Your task to perform on an android device: change the clock display to analog Image 0: 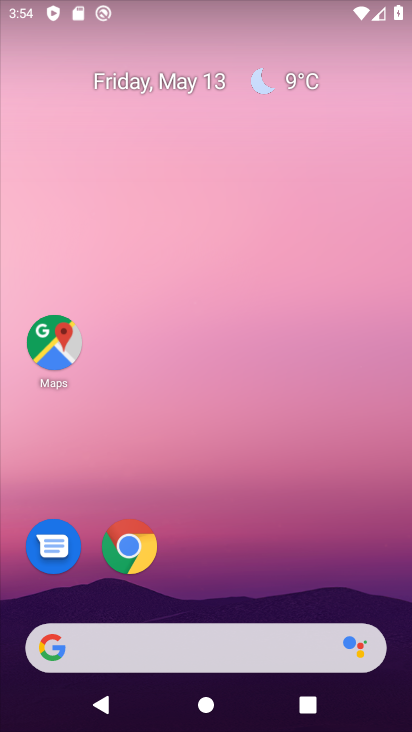
Step 0: drag from (228, 604) to (104, 3)
Your task to perform on an android device: change the clock display to analog Image 1: 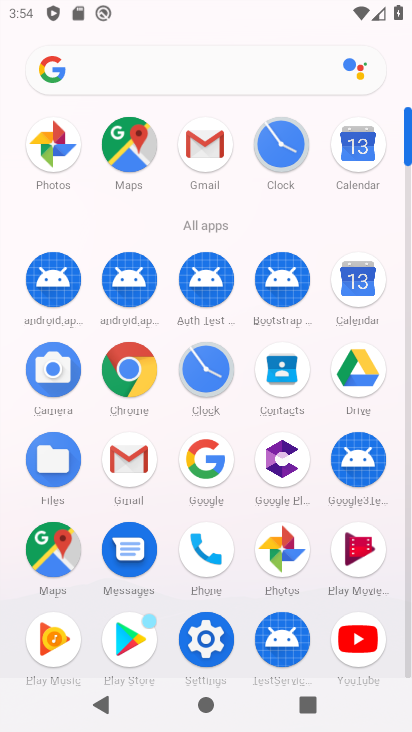
Step 1: click (210, 365)
Your task to perform on an android device: change the clock display to analog Image 2: 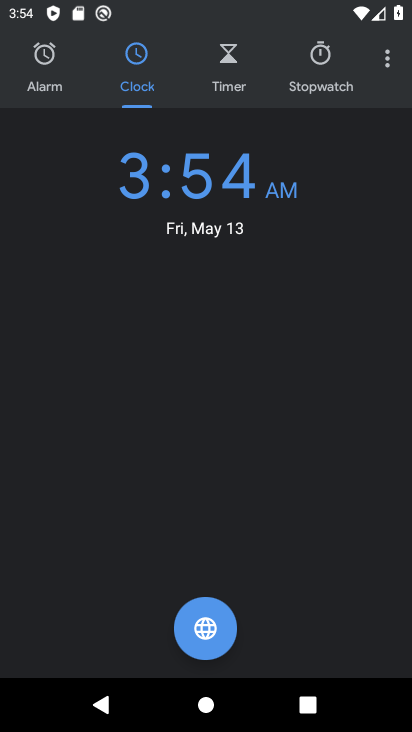
Step 2: click (397, 63)
Your task to perform on an android device: change the clock display to analog Image 3: 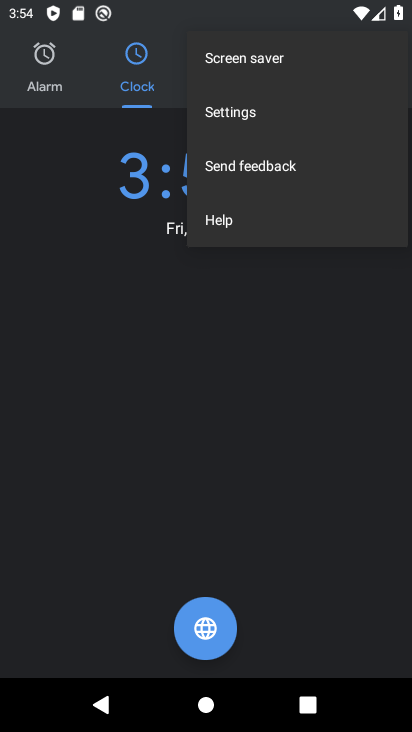
Step 3: click (261, 108)
Your task to perform on an android device: change the clock display to analog Image 4: 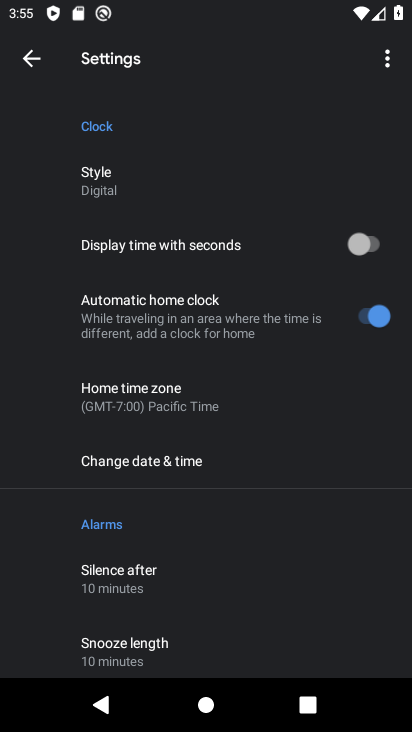
Step 4: click (128, 177)
Your task to perform on an android device: change the clock display to analog Image 5: 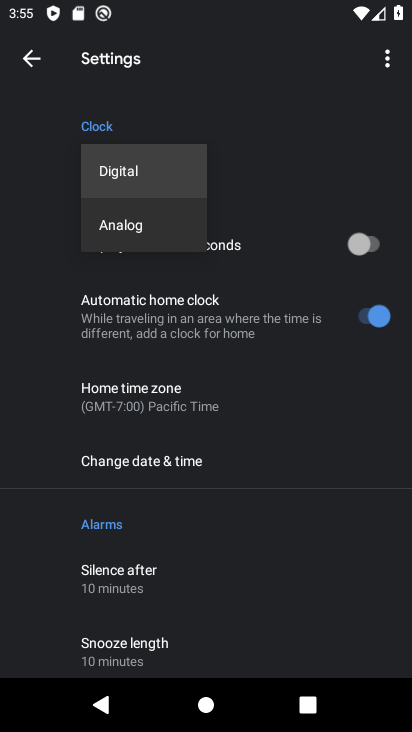
Step 5: click (150, 223)
Your task to perform on an android device: change the clock display to analog Image 6: 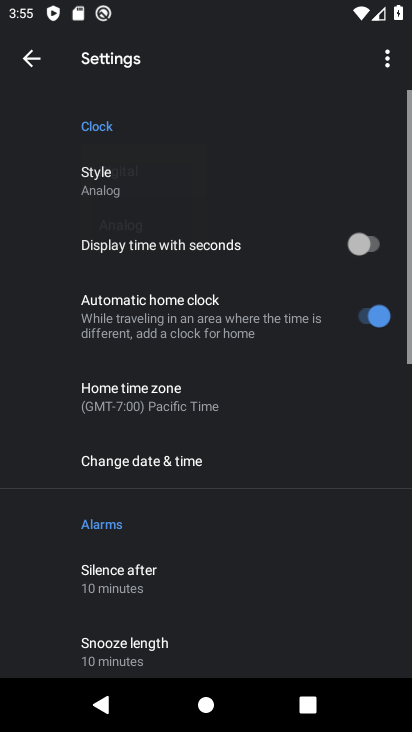
Step 6: task complete